Your task to perform on an android device: Open internet settings Image 0: 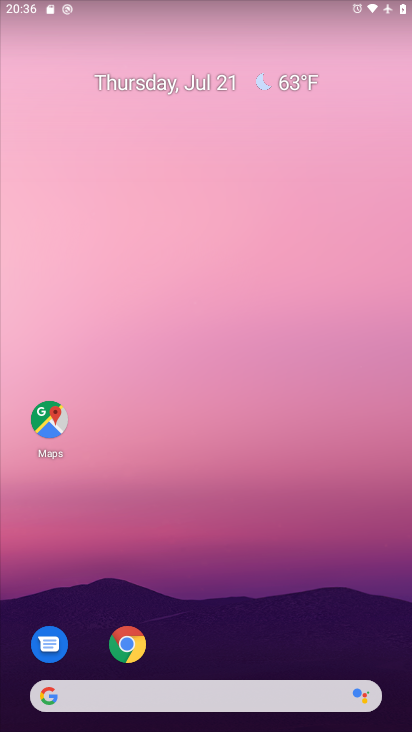
Step 0: drag from (232, 678) to (223, 53)
Your task to perform on an android device: Open internet settings Image 1: 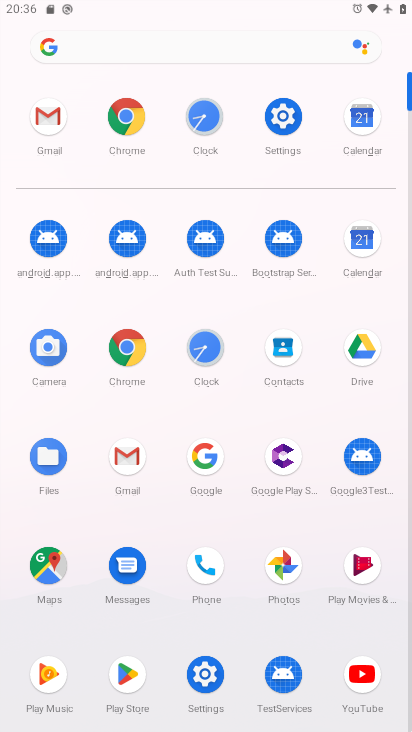
Step 1: click (288, 124)
Your task to perform on an android device: Open internet settings Image 2: 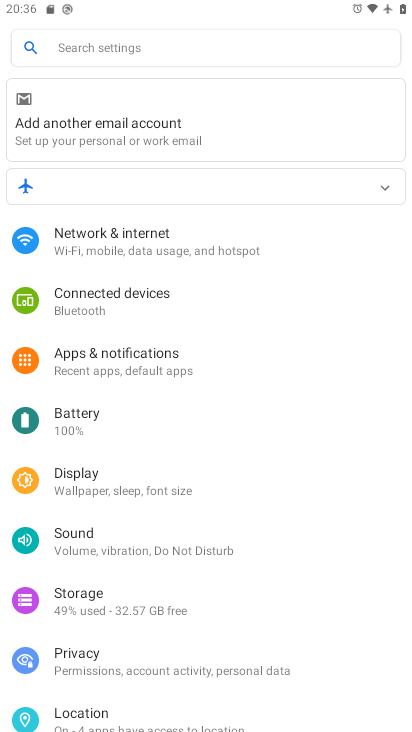
Step 2: click (146, 246)
Your task to perform on an android device: Open internet settings Image 3: 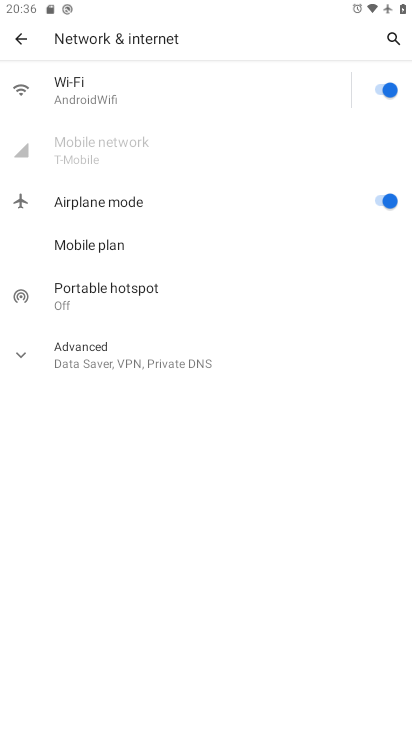
Step 3: task complete